Your task to perform on an android device: Go to Maps Image 0: 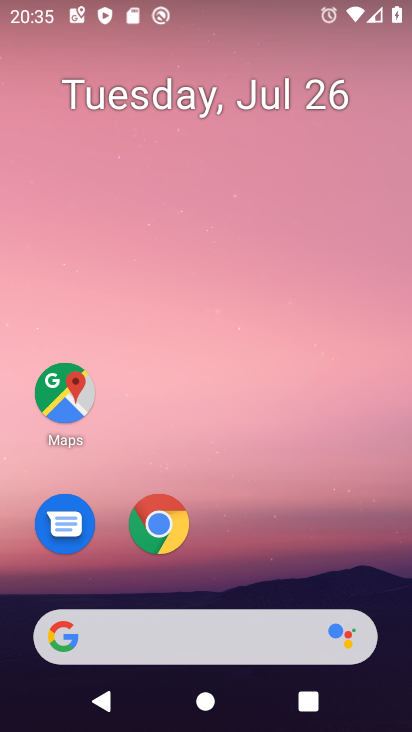
Step 0: click (70, 396)
Your task to perform on an android device: Go to Maps Image 1: 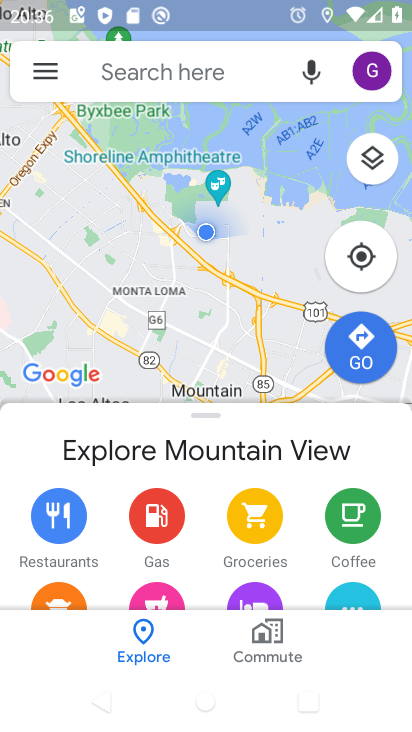
Step 1: task complete